Your task to perform on an android device: Open sound settings Image 0: 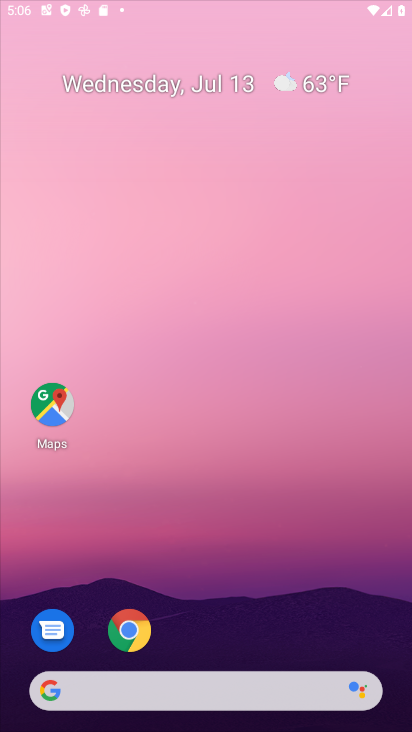
Step 0: press home button
Your task to perform on an android device: Open sound settings Image 1: 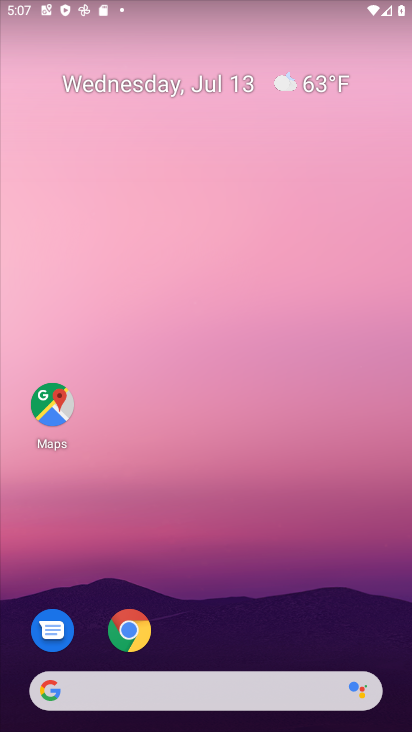
Step 1: drag from (240, 626) to (258, 0)
Your task to perform on an android device: Open sound settings Image 2: 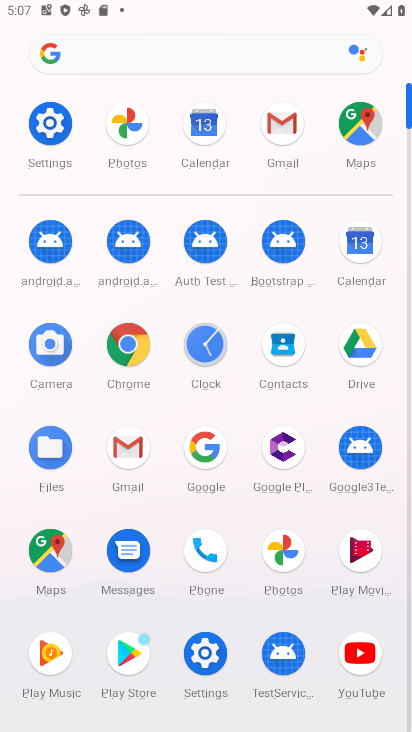
Step 2: click (39, 135)
Your task to perform on an android device: Open sound settings Image 3: 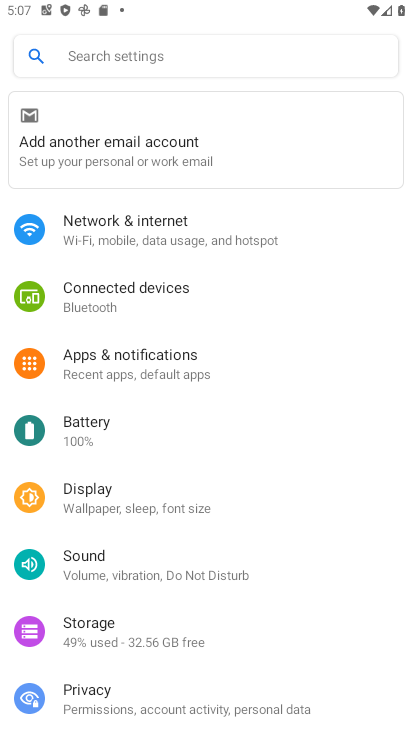
Step 3: click (79, 563)
Your task to perform on an android device: Open sound settings Image 4: 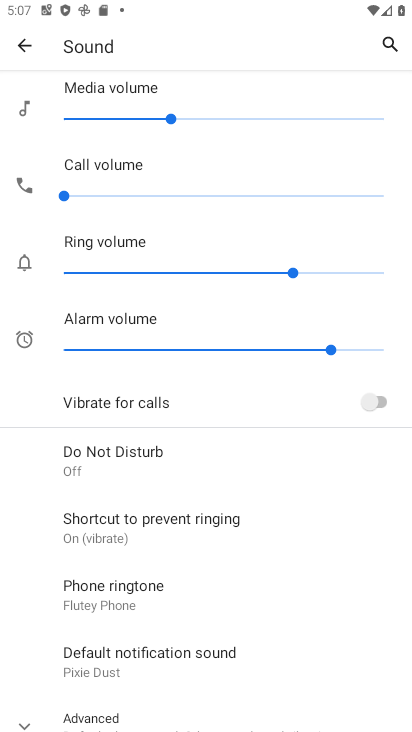
Step 4: task complete